Your task to perform on an android device: Open Wikipedia Image 0: 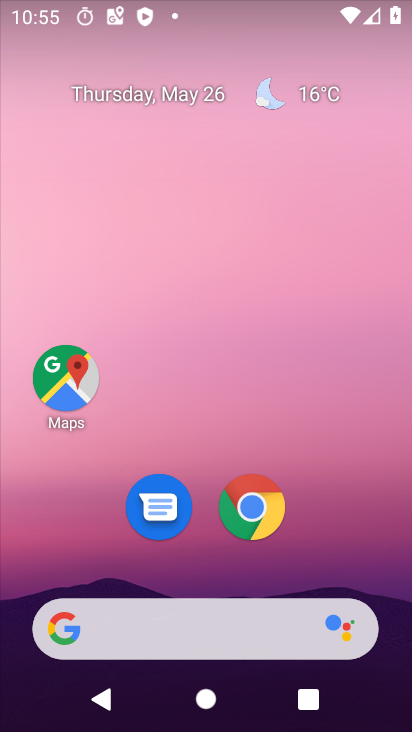
Step 0: drag from (215, 597) to (254, 300)
Your task to perform on an android device: Open Wikipedia Image 1: 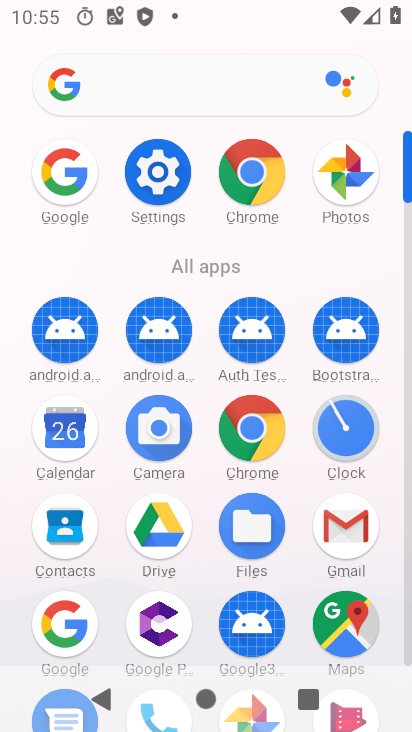
Step 1: click (266, 171)
Your task to perform on an android device: Open Wikipedia Image 2: 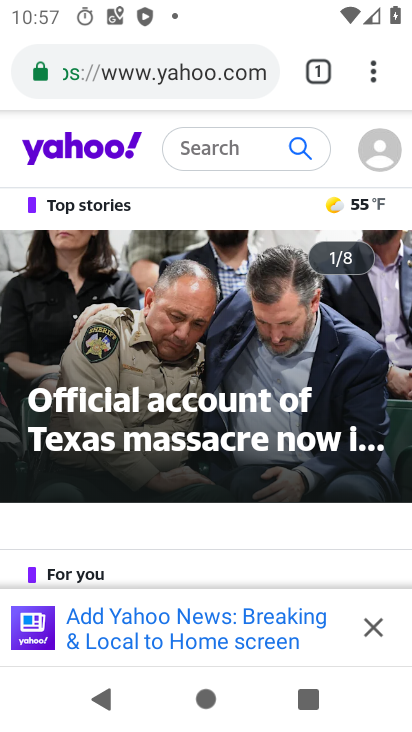
Step 2: click (314, 73)
Your task to perform on an android device: Open Wikipedia Image 3: 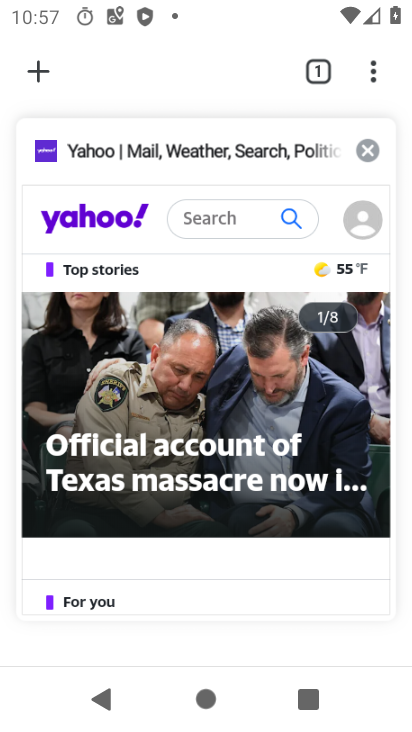
Step 3: click (364, 157)
Your task to perform on an android device: Open Wikipedia Image 4: 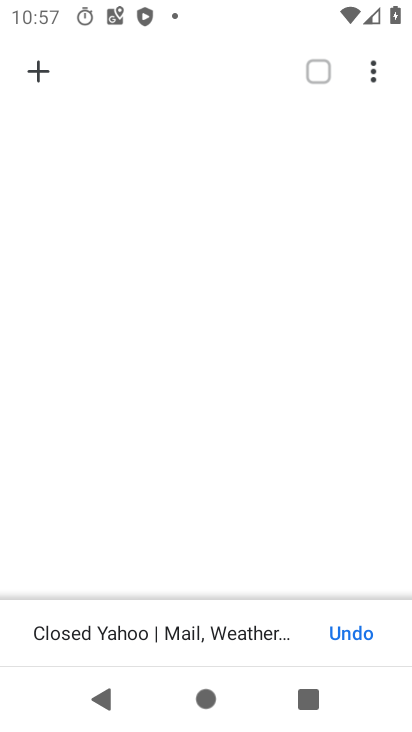
Step 4: click (45, 67)
Your task to perform on an android device: Open Wikipedia Image 5: 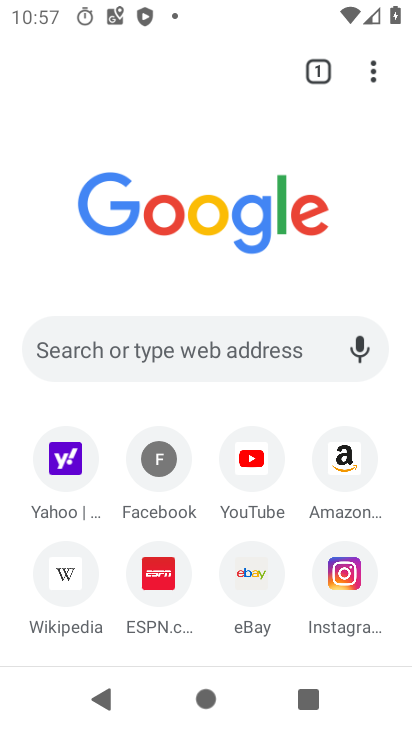
Step 5: click (71, 576)
Your task to perform on an android device: Open Wikipedia Image 6: 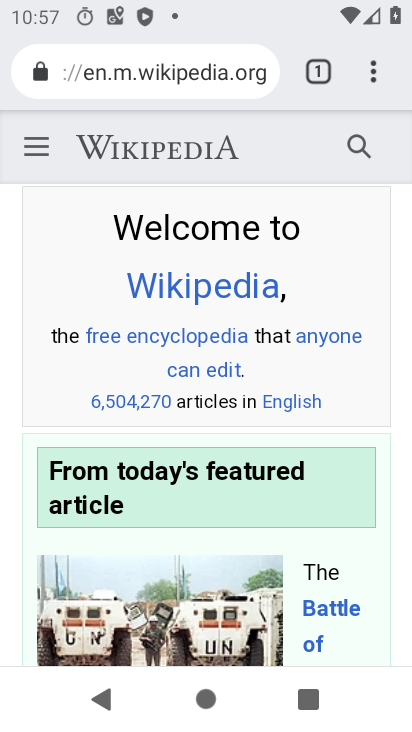
Step 6: task complete